Your task to perform on an android device: check the backup settings in the google photos Image 0: 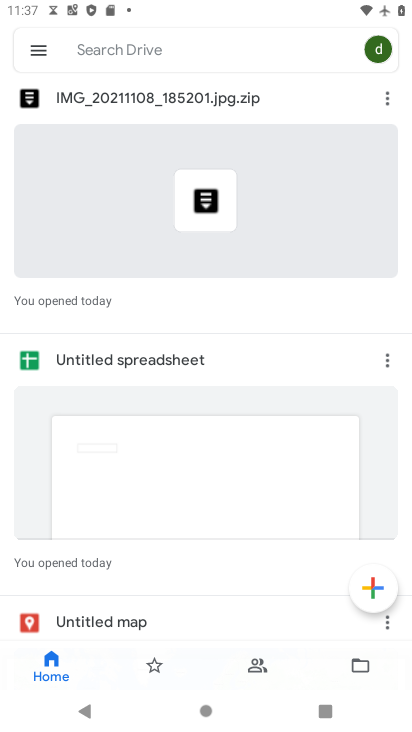
Step 0: press back button
Your task to perform on an android device: check the backup settings in the google photos Image 1: 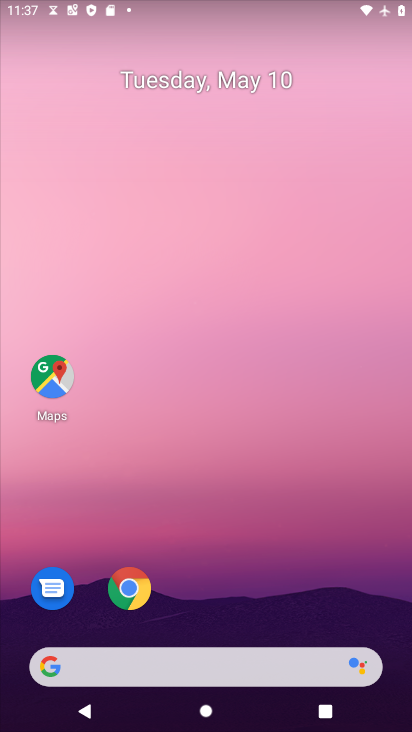
Step 1: drag from (270, 605) to (131, 202)
Your task to perform on an android device: check the backup settings in the google photos Image 2: 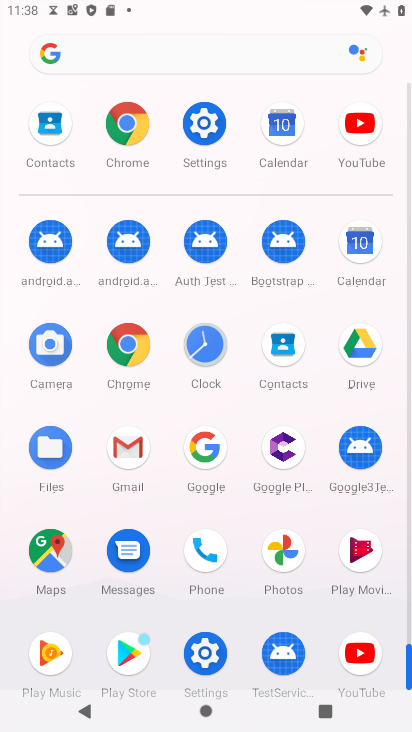
Step 2: click (282, 548)
Your task to perform on an android device: check the backup settings in the google photos Image 3: 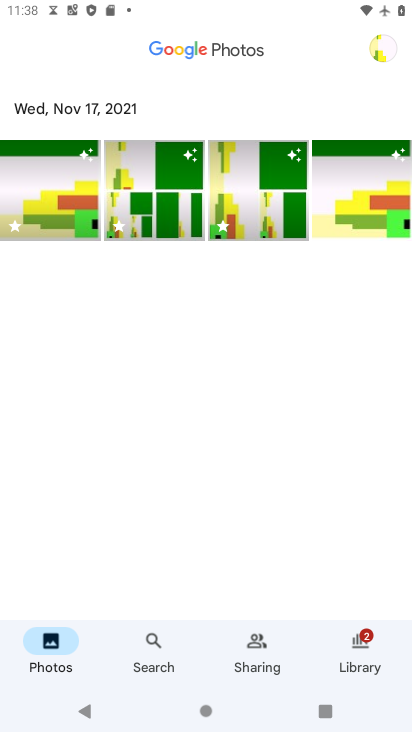
Step 3: task complete